Your task to perform on an android device: visit the assistant section in the google photos Image 0: 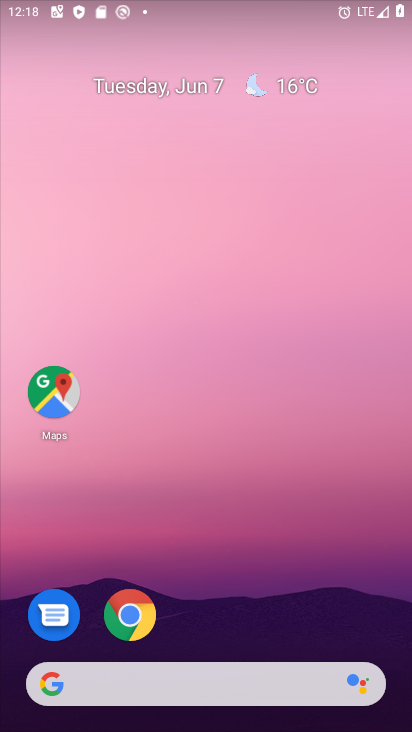
Step 0: press home button
Your task to perform on an android device: visit the assistant section in the google photos Image 1: 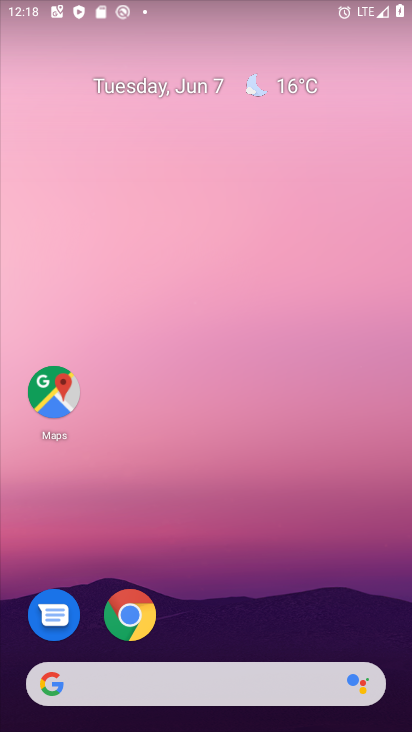
Step 1: drag from (233, 549) to (239, 190)
Your task to perform on an android device: visit the assistant section in the google photos Image 2: 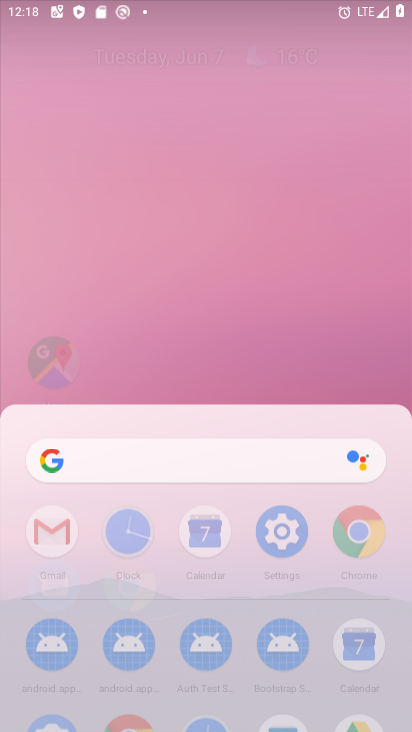
Step 2: click (239, 35)
Your task to perform on an android device: visit the assistant section in the google photos Image 3: 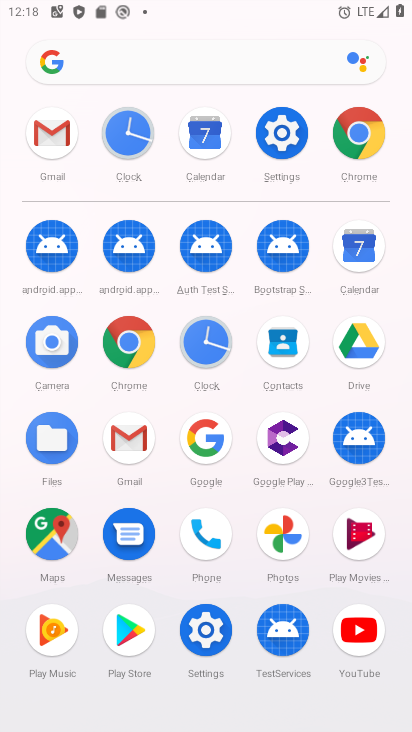
Step 3: click (281, 522)
Your task to perform on an android device: visit the assistant section in the google photos Image 4: 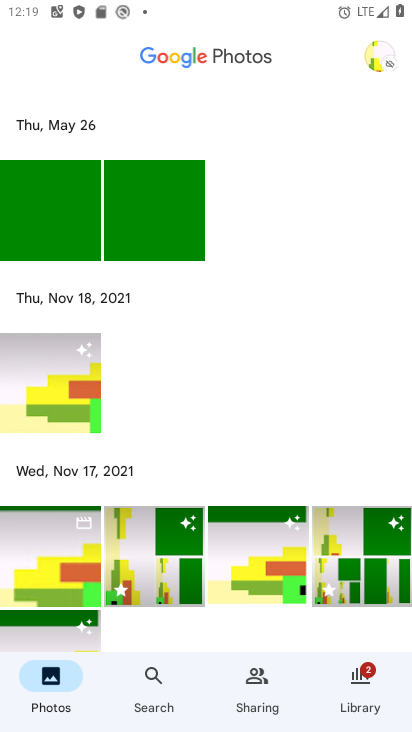
Step 4: click (260, 675)
Your task to perform on an android device: visit the assistant section in the google photos Image 5: 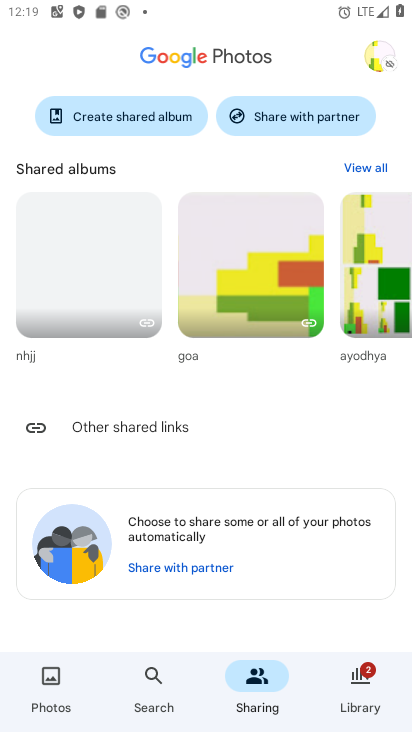
Step 5: drag from (215, 577) to (203, 172)
Your task to perform on an android device: visit the assistant section in the google photos Image 6: 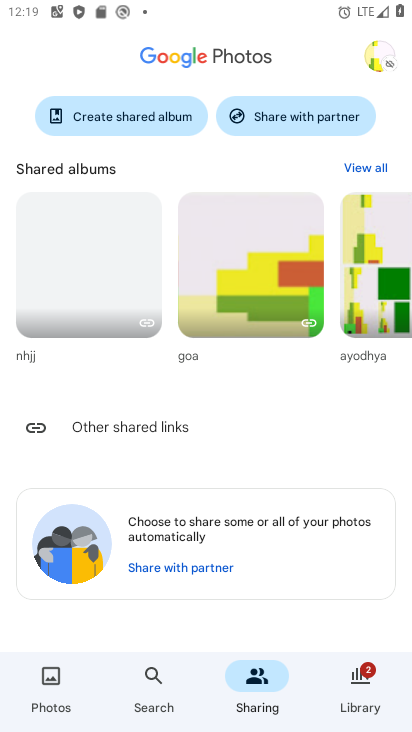
Step 6: drag from (222, 535) to (220, 137)
Your task to perform on an android device: visit the assistant section in the google photos Image 7: 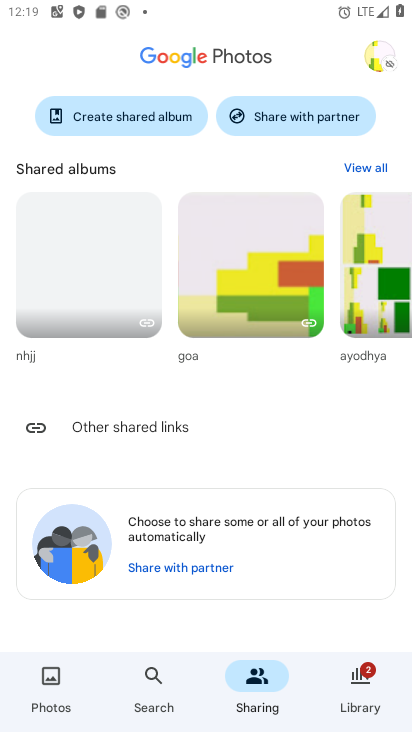
Step 7: click (363, 671)
Your task to perform on an android device: visit the assistant section in the google photos Image 8: 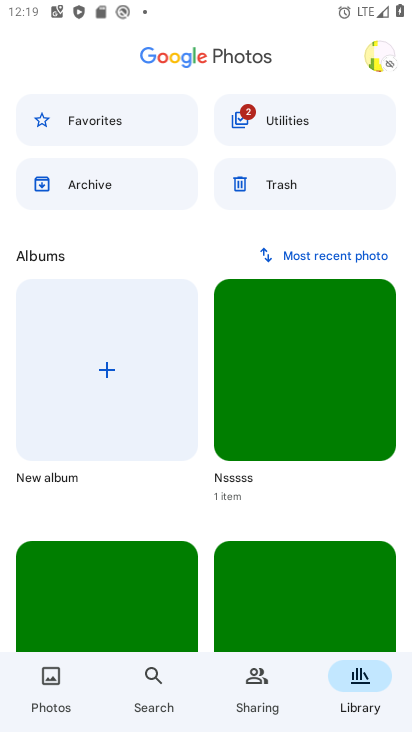
Step 8: task complete